Your task to perform on an android device: Toggle the flashlight Image 0: 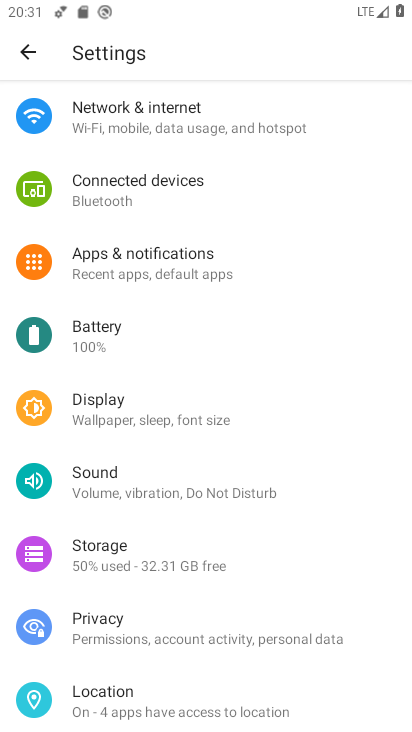
Step 0: drag from (150, 164) to (282, 684)
Your task to perform on an android device: Toggle the flashlight Image 1: 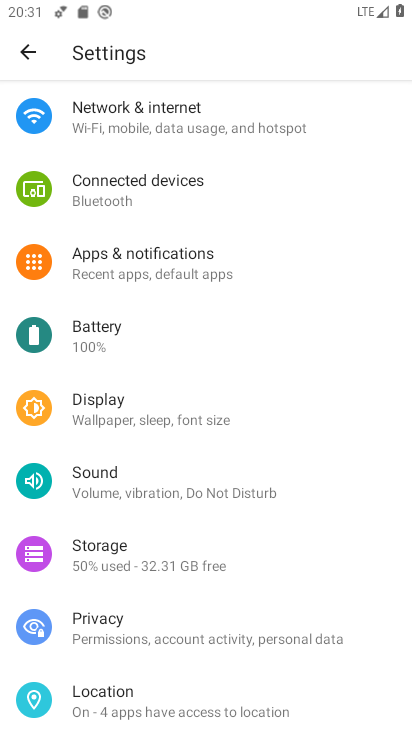
Step 1: drag from (251, 375) to (312, 44)
Your task to perform on an android device: Toggle the flashlight Image 2: 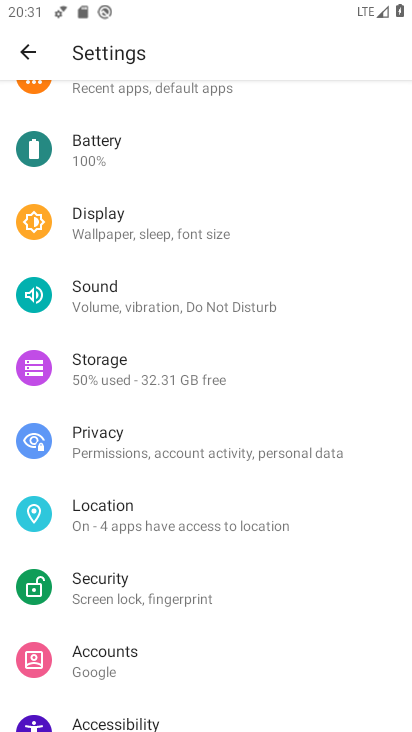
Step 2: click (23, 56)
Your task to perform on an android device: Toggle the flashlight Image 3: 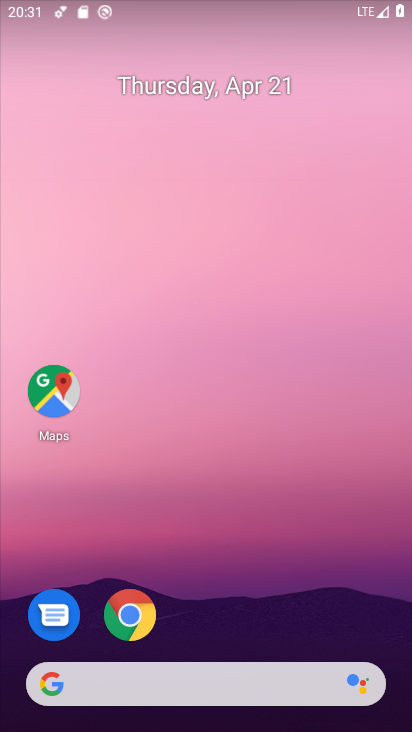
Step 3: drag from (226, 607) to (334, 56)
Your task to perform on an android device: Toggle the flashlight Image 4: 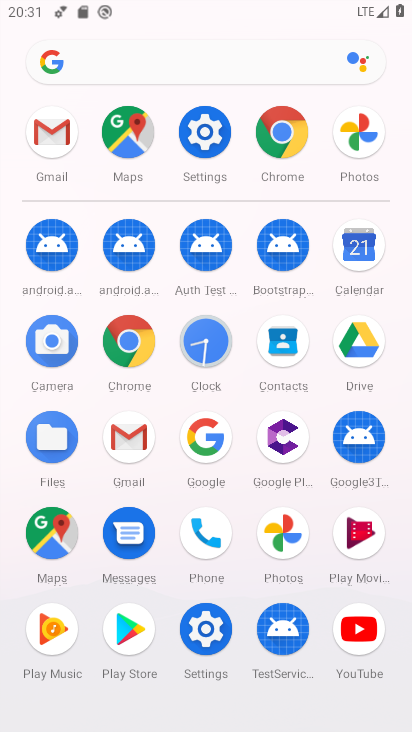
Step 4: click (194, 634)
Your task to perform on an android device: Toggle the flashlight Image 5: 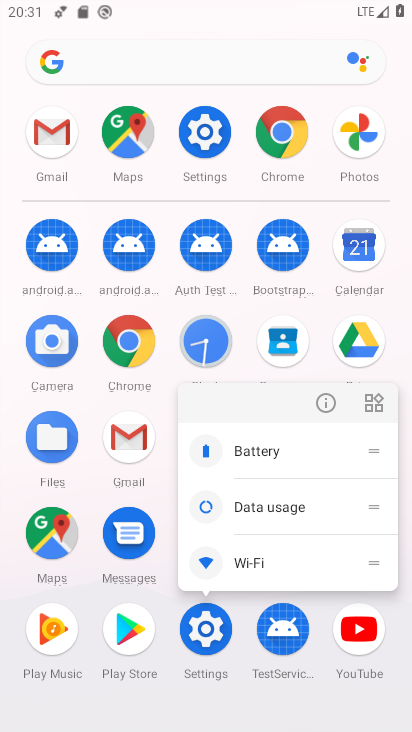
Step 5: click (317, 414)
Your task to perform on an android device: Toggle the flashlight Image 6: 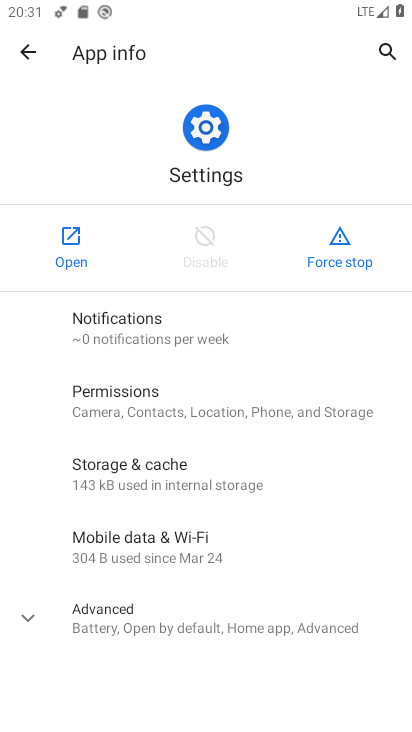
Step 6: click (51, 258)
Your task to perform on an android device: Toggle the flashlight Image 7: 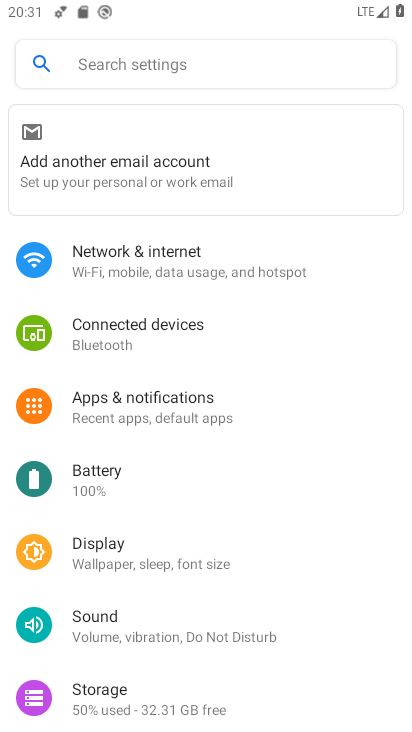
Step 7: click (244, 75)
Your task to perform on an android device: Toggle the flashlight Image 8: 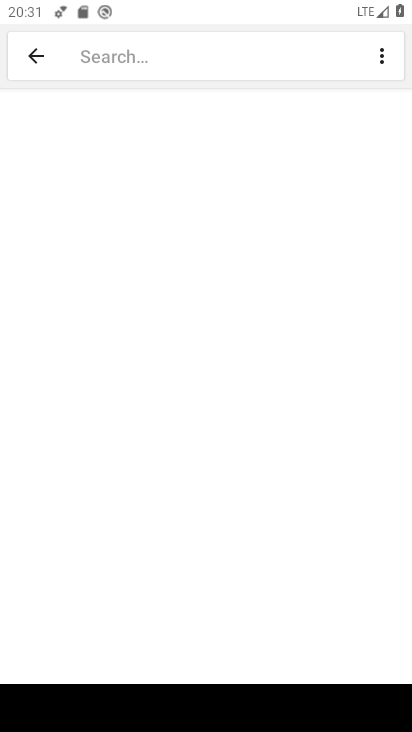
Step 8: type "flashlight"
Your task to perform on an android device: Toggle the flashlight Image 9: 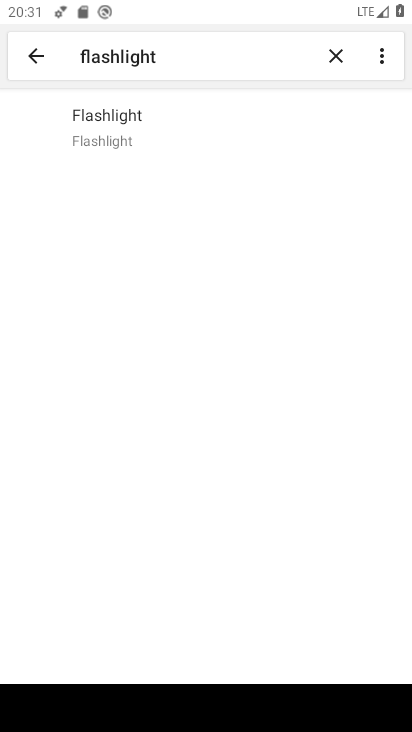
Step 9: click (134, 139)
Your task to perform on an android device: Toggle the flashlight Image 10: 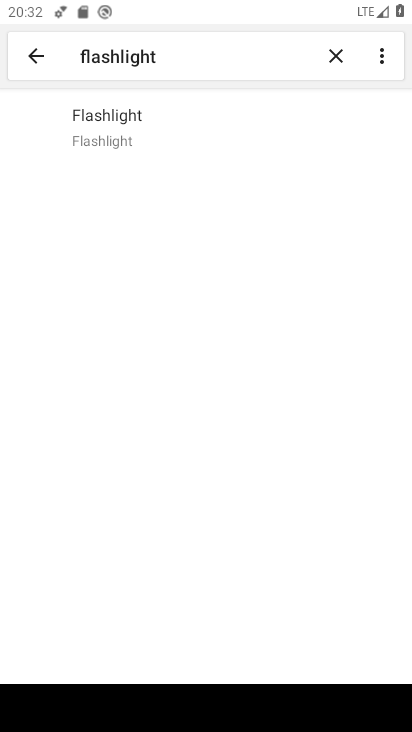
Step 10: click (203, 121)
Your task to perform on an android device: Toggle the flashlight Image 11: 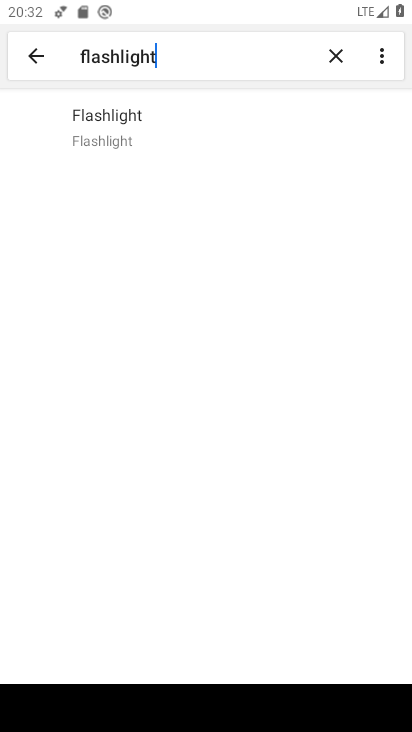
Step 11: task complete